Your task to perform on an android device: Open the phone app and click the voicemail tab. Image 0: 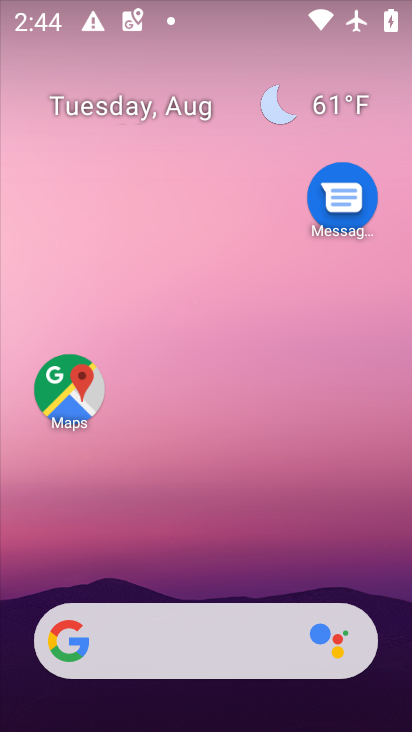
Step 0: drag from (251, 576) to (201, 48)
Your task to perform on an android device: Open the phone app and click the voicemail tab. Image 1: 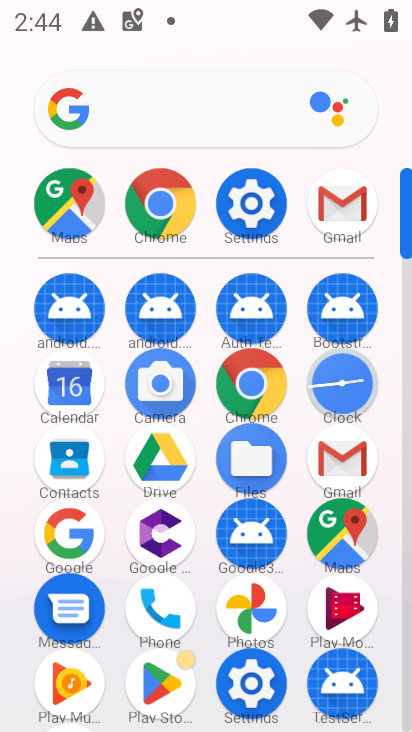
Step 1: click (157, 604)
Your task to perform on an android device: Open the phone app and click the voicemail tab. Image 2: 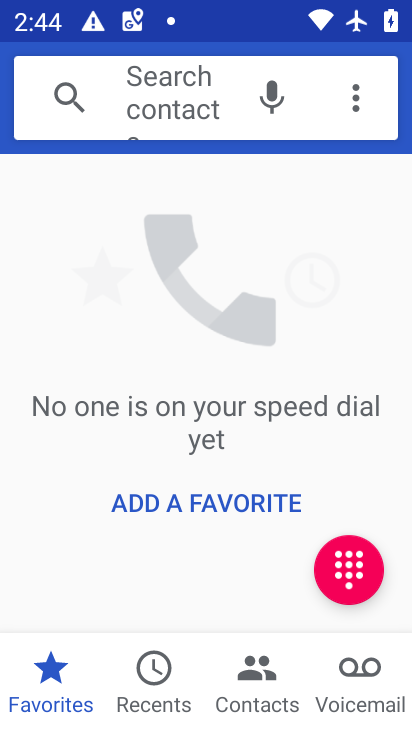
Step 2: click (370, 677)
Your task to perform on an android device: Open the phone app and click the voicemail tab. Image 3: 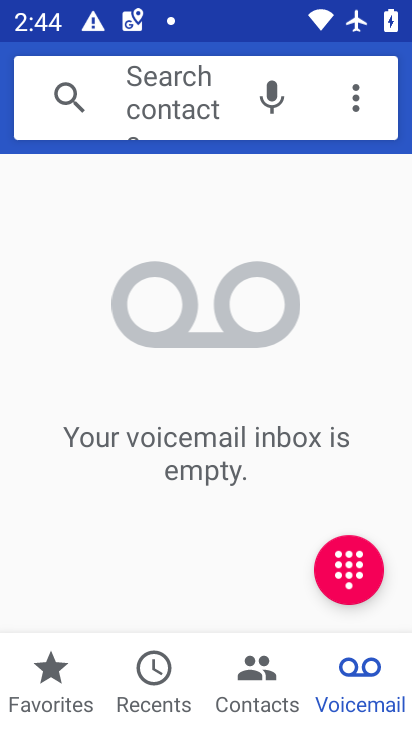
Step 3: task complete